Your task to perform on an android device: Go to notification settings Image 0: 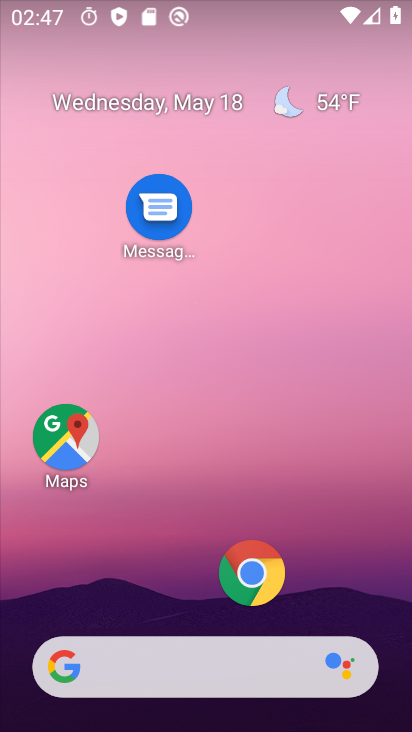
Step 0: drag from (201, 609) to (215, 197)
Your task to perform on an android device: Go to notification settings Image 1: 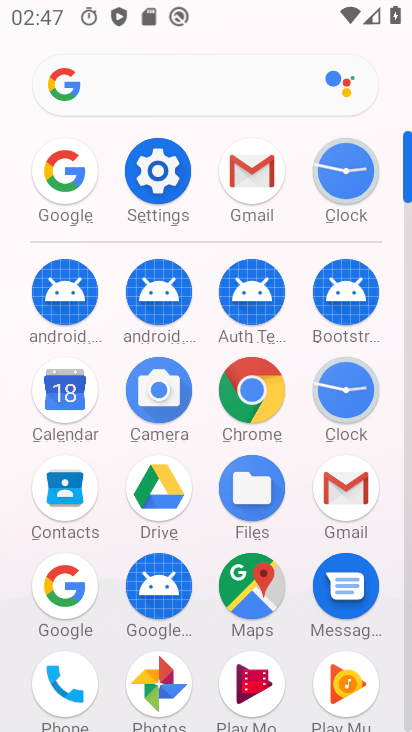
Step 1: click (179, 193)
Your task to perform on an android device: Go to notification settings Image 2: 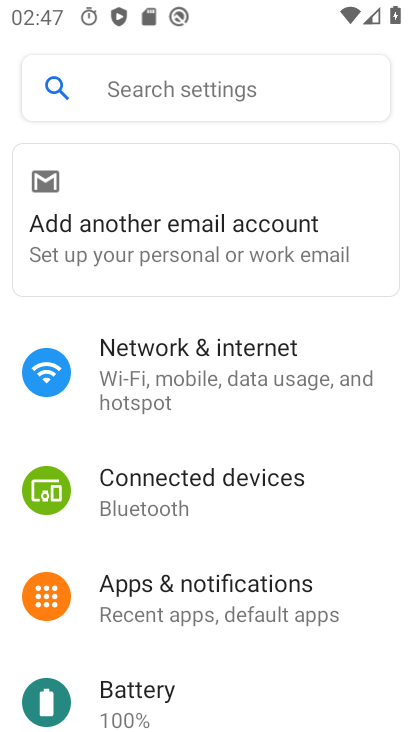
Step 2: click (233, 610)
Your task to perform on an android device: Go to notification settings Image 3: 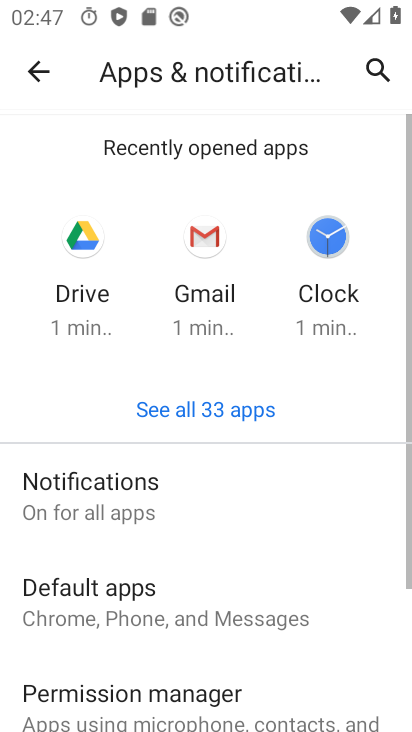
Step 3: click (178, 506)
Your task to perform on an android device: Go to notification settings Image 4: 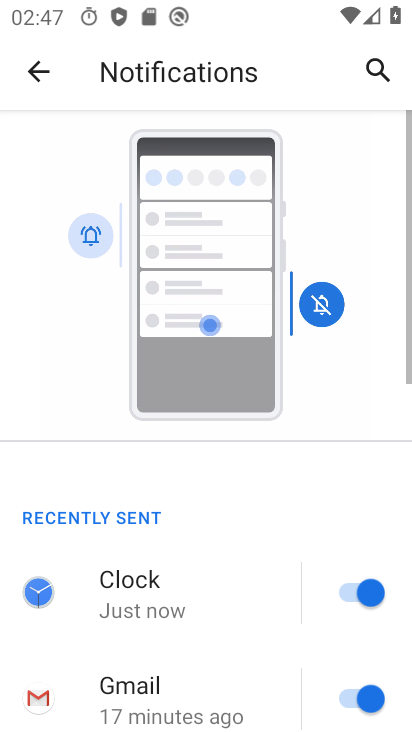
Step 4: task complete